Your task to perform on an android device: Open Google Chrome and open the bookmarks view Image 0: 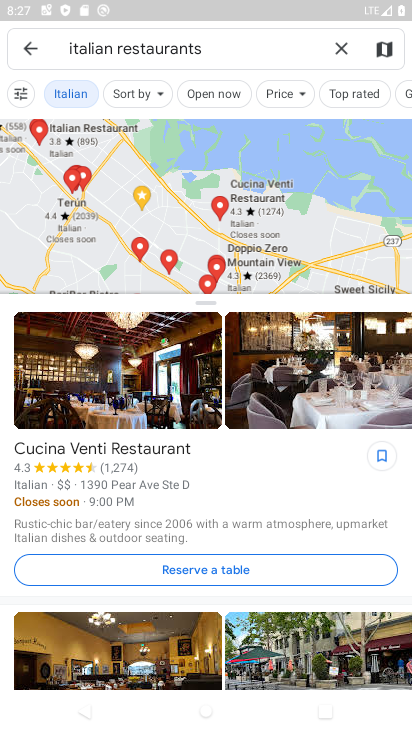
Step 0: press home button
Your task to perform on an android device: Open Google Chrome and open the bookmarks view Image 1: 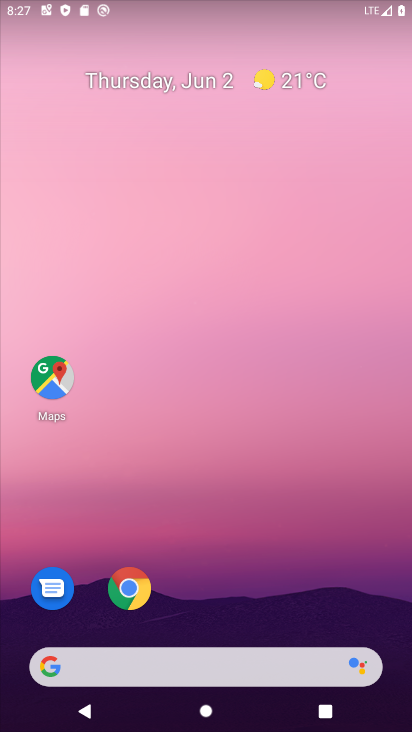
Step 1: drag from (214, 525) to (260, 251)
Your task to perform on an android device: Open Google Chrome and open the bookmarks view Image 2: 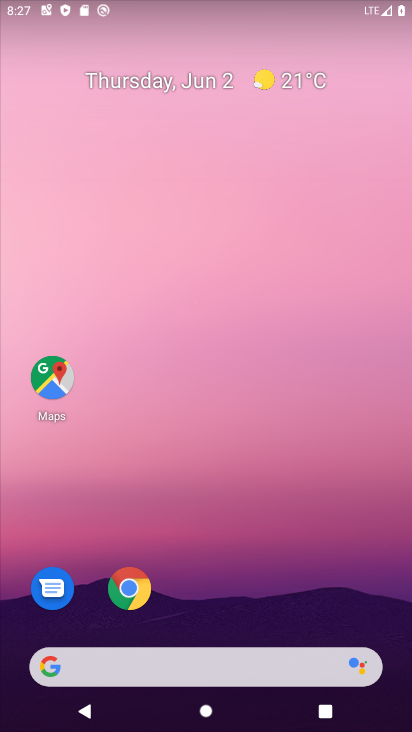
Step 2: drag from (248, 498) to (289, 239)
Your task to perform on an android device: Open Google Chrome and open the bookmarks view Image 3: 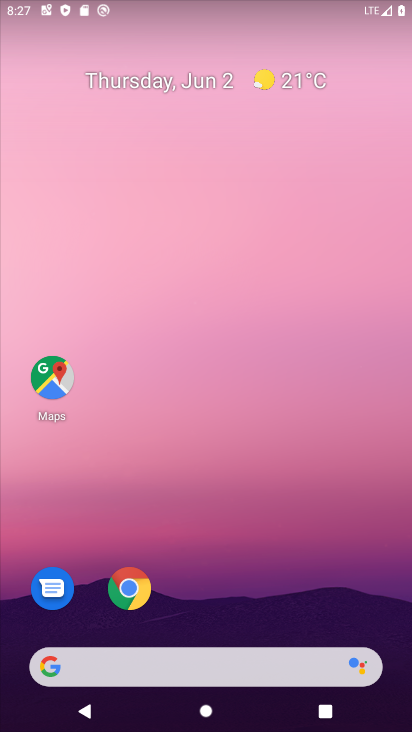
Step 3: drag from (234, 647) to (322, 132)
Your task to perform on an android device: Open Google Chrome and open the bookmarks view Image 4: 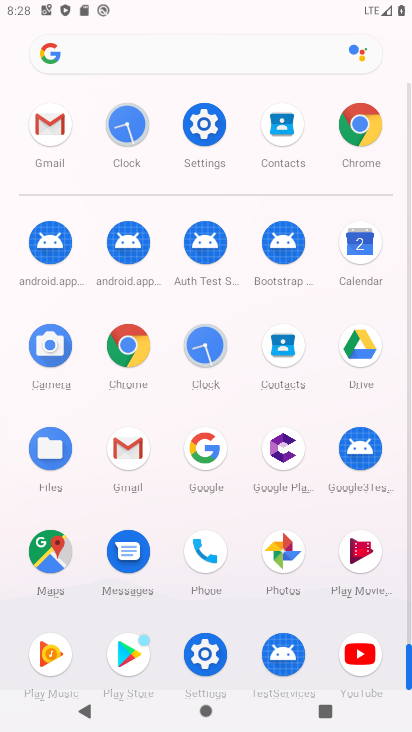
Step 4: click (352, 146)
Your task to perform on an android device: Open Google Chrome and open the bookmarks view Image 5: 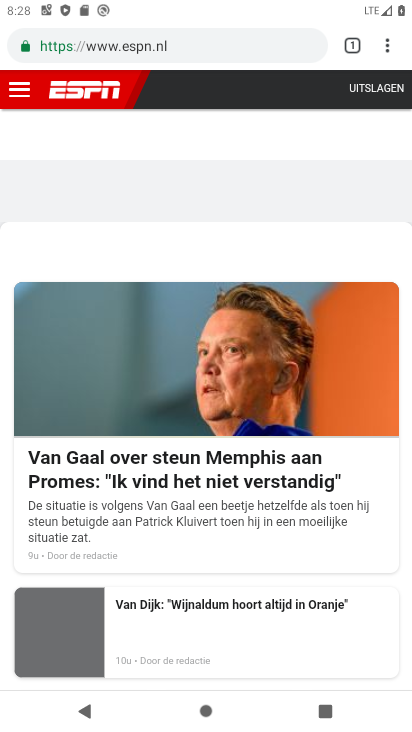
Step 5: click (388, 55)
Your task to perform on an android device: Open Google Chrome and open the bookmarks view Image 6: 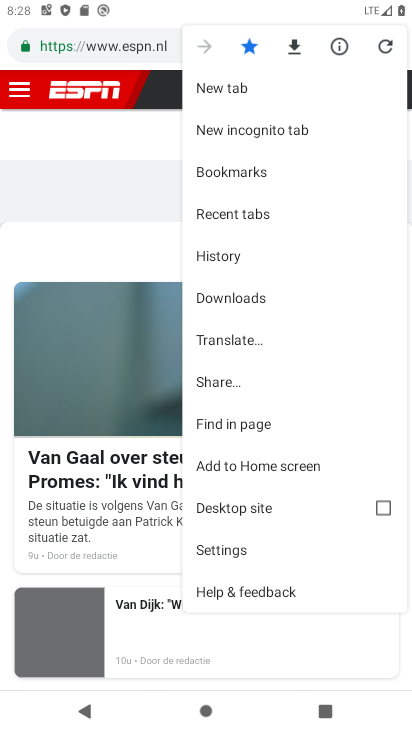
Step 6: click (268, 178)
Your task to perform on an android device: Open Google Chrome and open the bookmarks view Image 7: 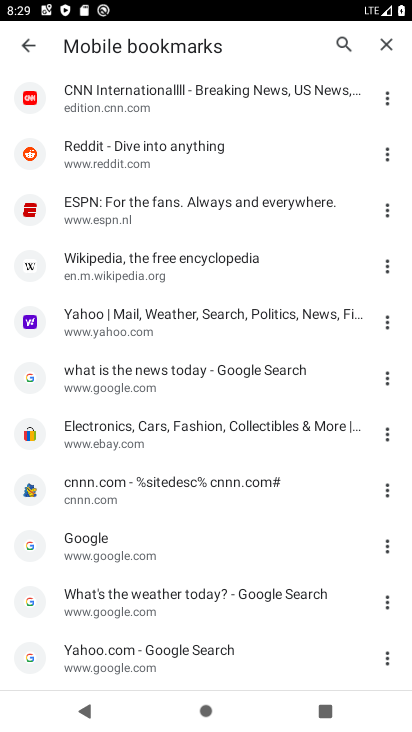
Step 7: task complete